Your task to perform on an android device: open app "Indeed Job Search" Image 0: 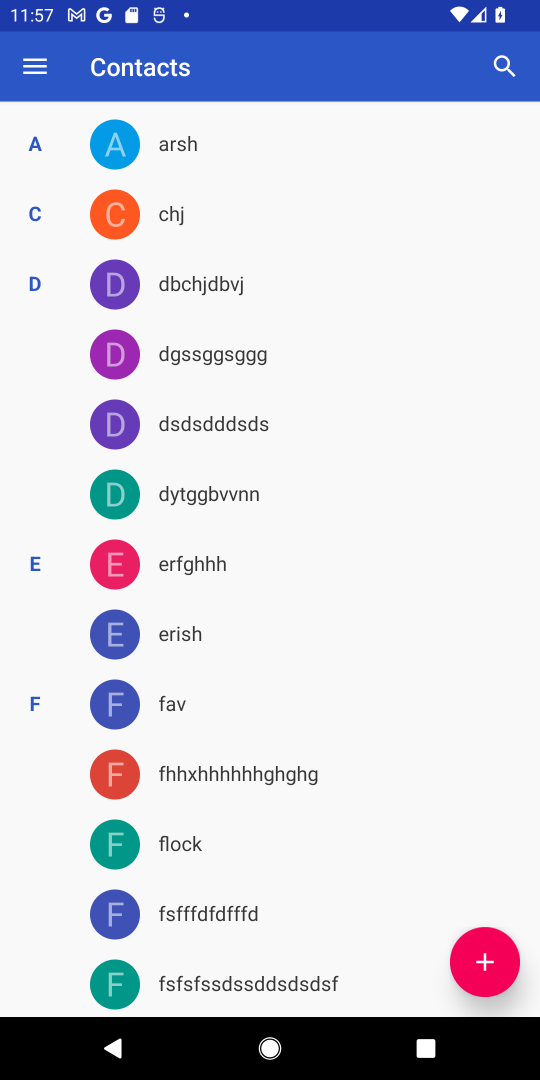
Step 0: press home button
Your task to perform on an android device: open app "Indeed Job Search" Image 1: 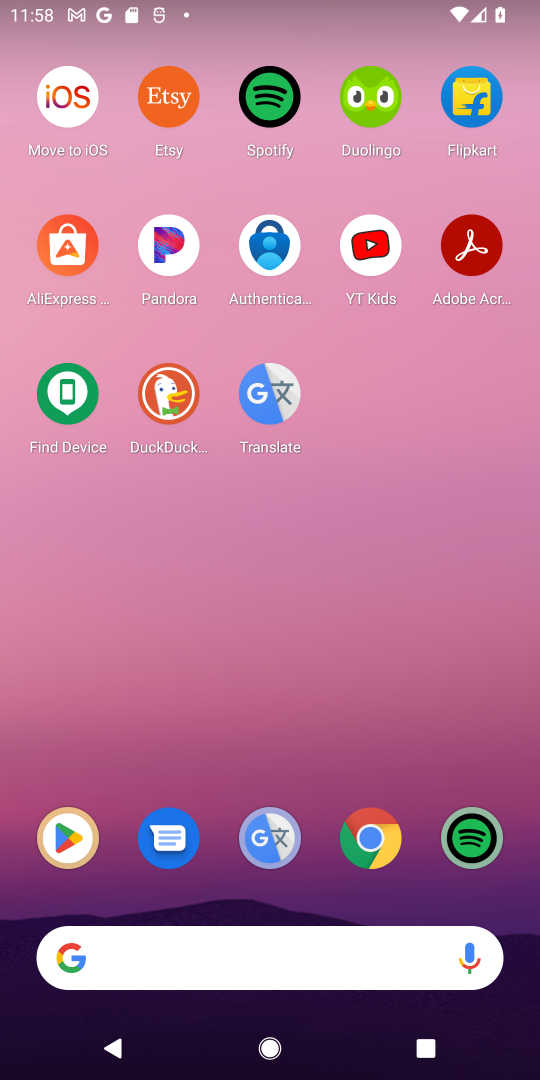
Step 1: click (69, 827)
Your task to perform on an android device: open app "Indeed Job Search" Image 2: 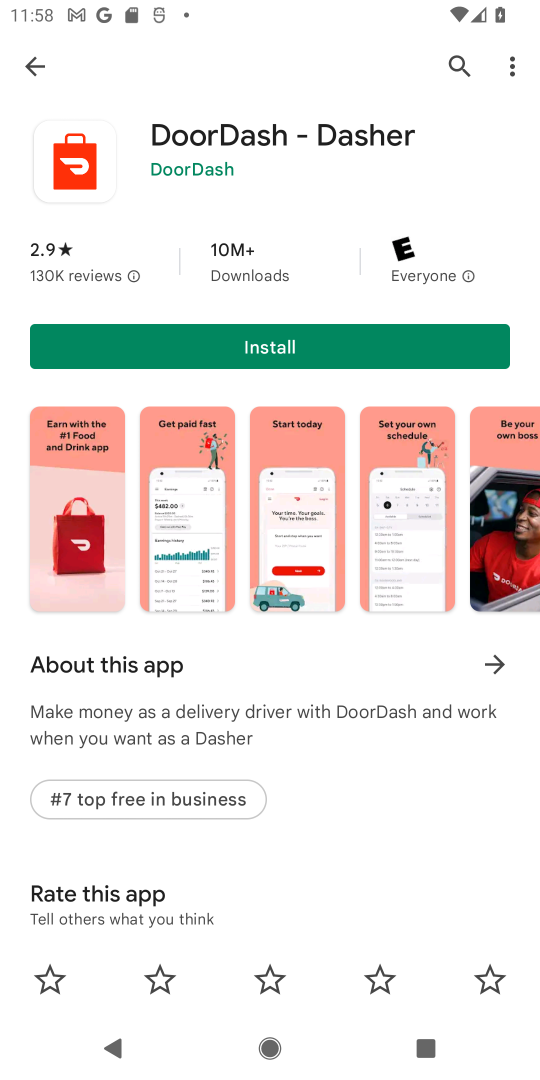
Step 2: click (465, 68)
Your task to perform on an android device: open app "Indeed Job Search" Image 3: 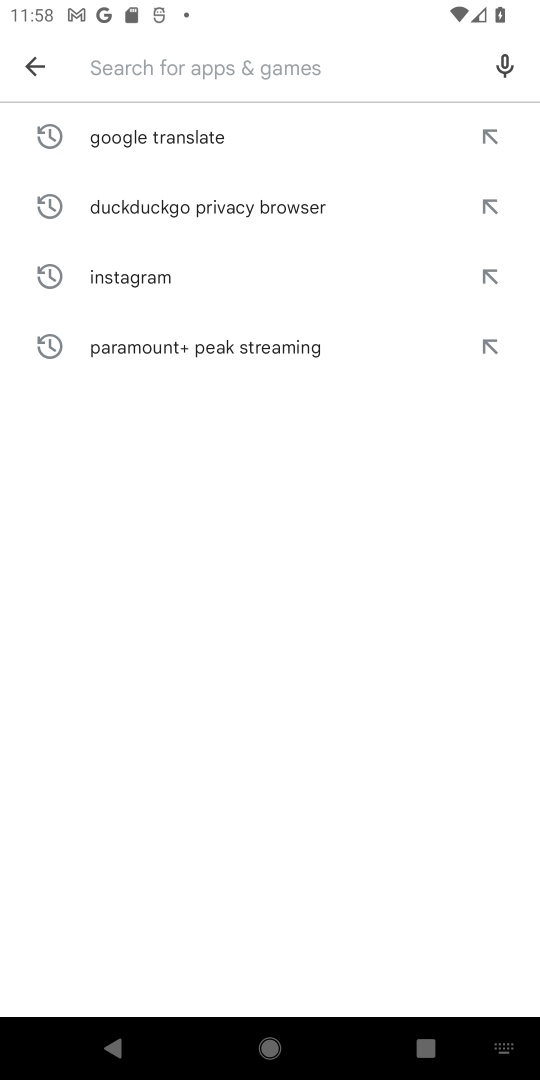
Step 3: type "Indeed Job Search"
Your task to perform on an android device: open app "Indeed Job Search" Image 4: 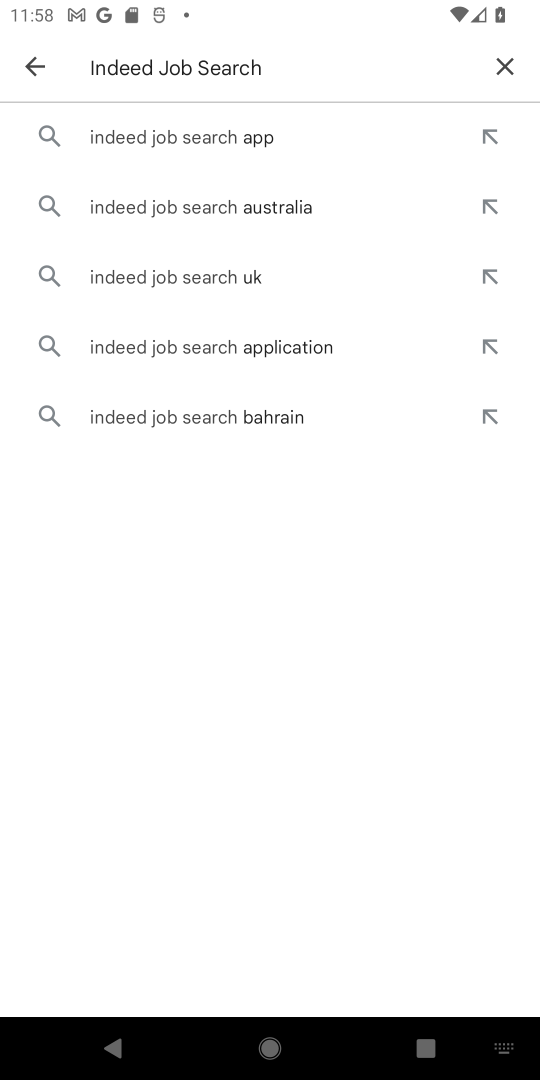
Step 4: click (139, 129)
Your task to perform on an android device: open app "Indeed Job Search" Image 5: 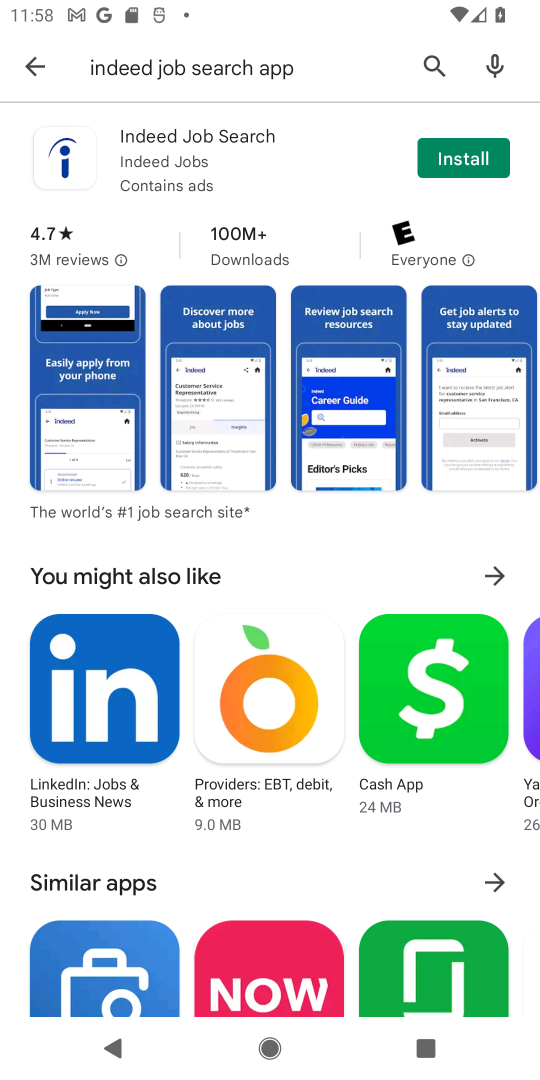
Step 5: task complete